Your task to perform on an android device: turn vacation reply on in the gmail app Image 0: 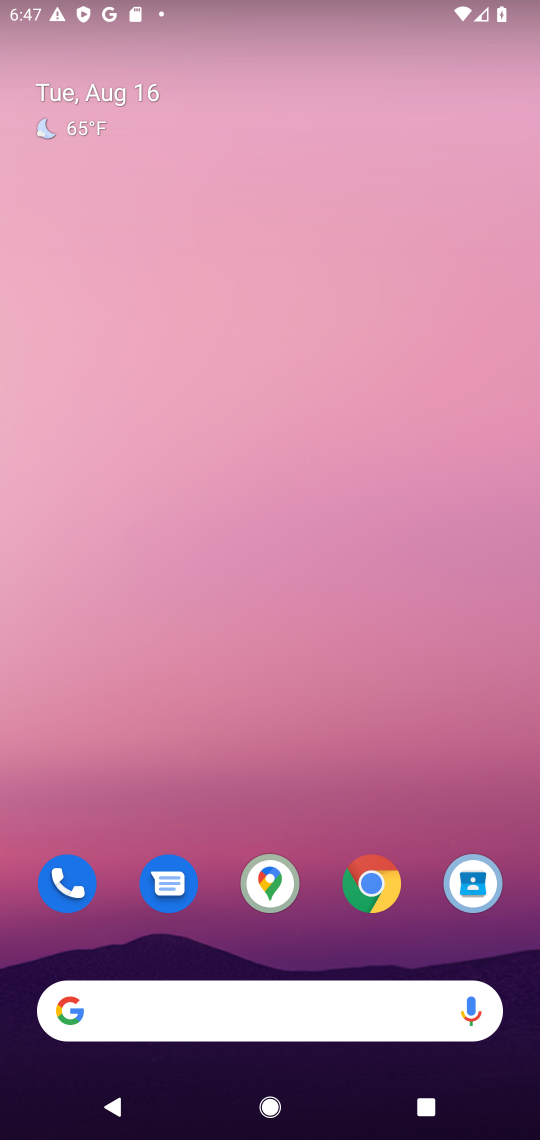
Step 0: drag from (266, 1012) to (347, 20)
Your task to perform on an android device: turn vacation reply on in the gmail app Image 1: 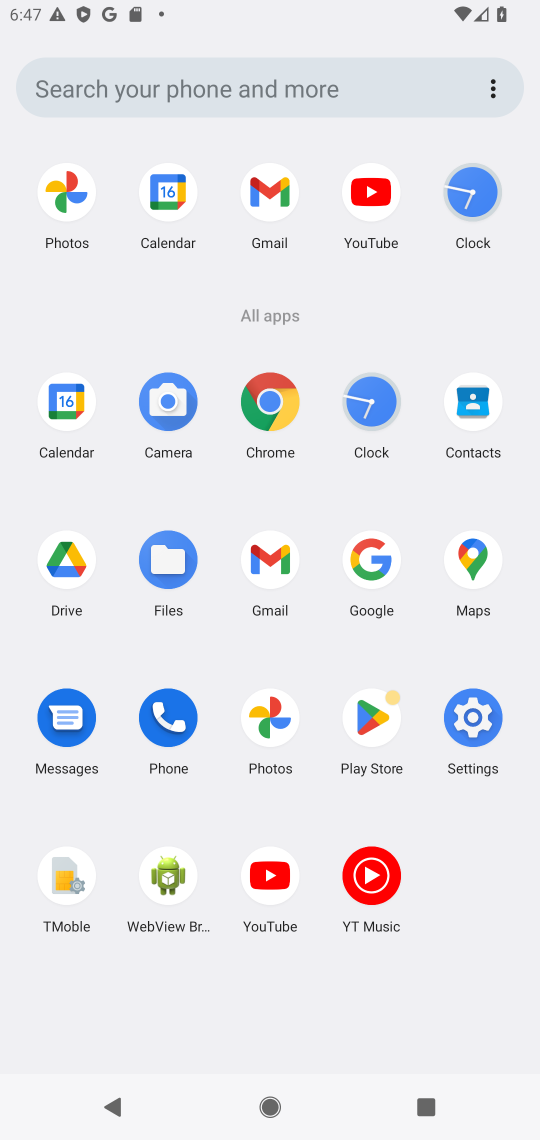
Step 1: click (269, 565)
Your task to perform on an android device: turn vacation reply on in the gmail app Image 2: 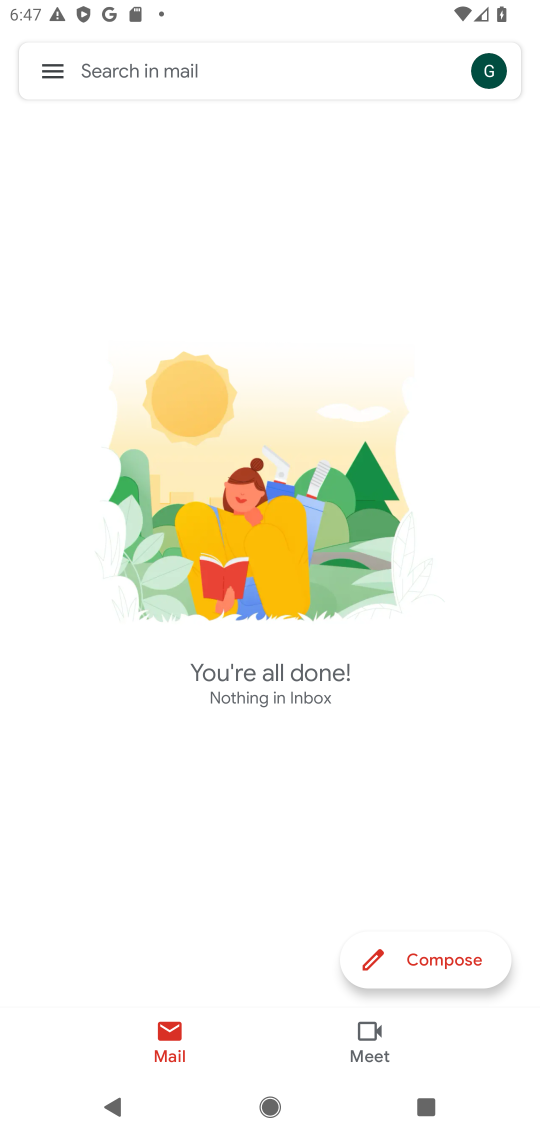
Step 2: click (49, 73)
Your task to perform on an android device: turn vacation reply on in the gmail app Image 3: 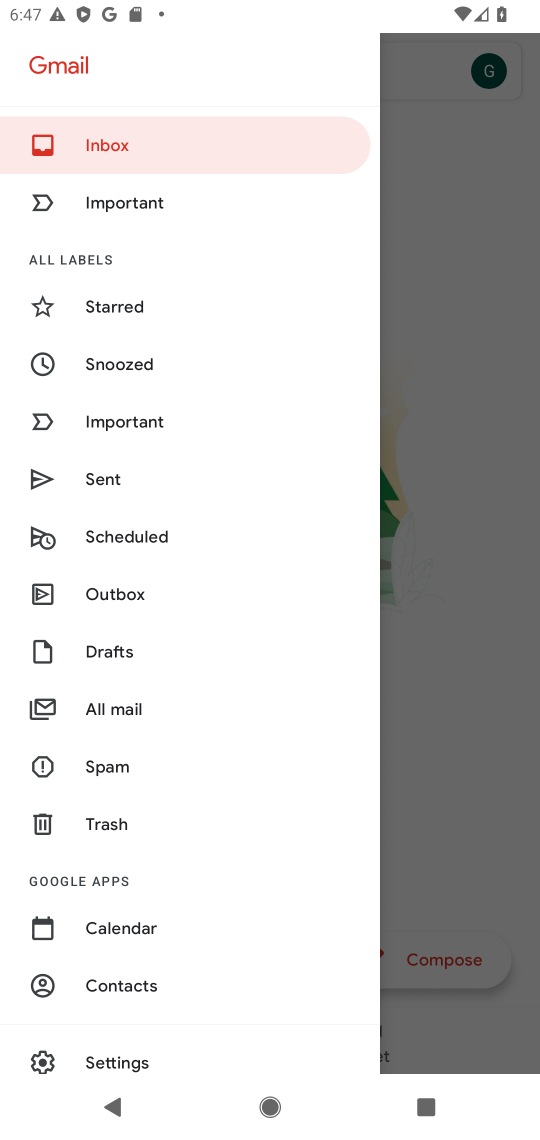
Step 3: drag from (151, 1005) to (171, 694)
Your task to perform on an android device: turn vacation reply on in the gmail app Image 4: 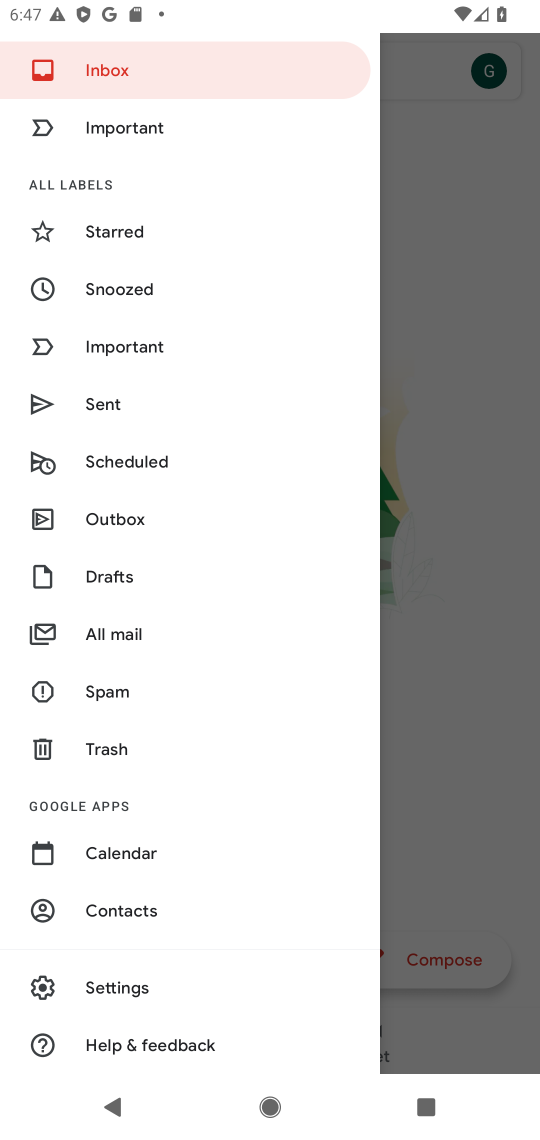
Step 4: click (127, 988)
Your task to perform on an android device: turn vacation reply on in the gmail app Image 5: 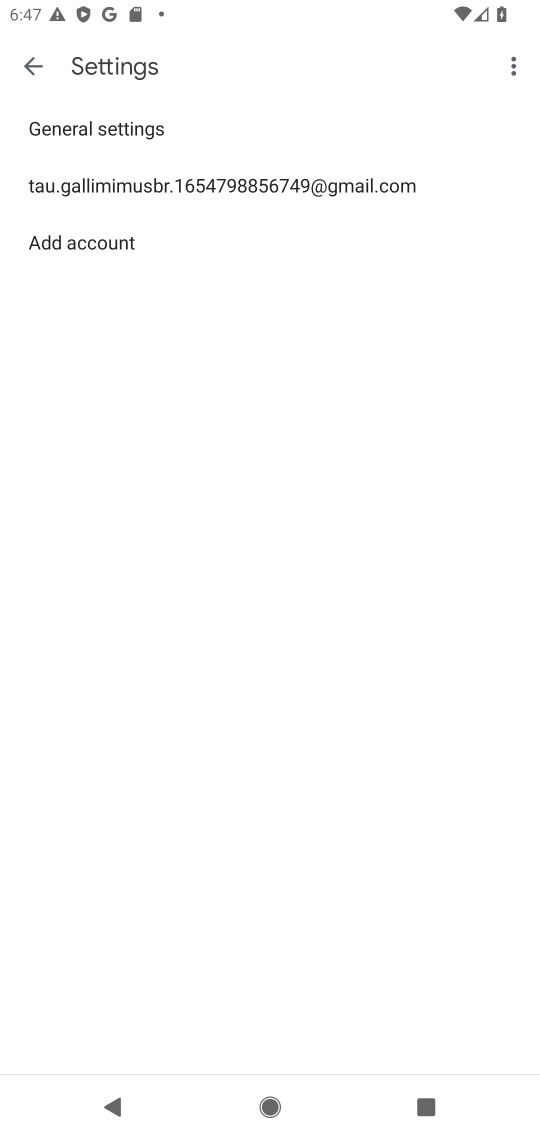
Step 5: click (285, 189)
Your task to perform on an android device: turn vacation reply on in the gmail app Image 6: 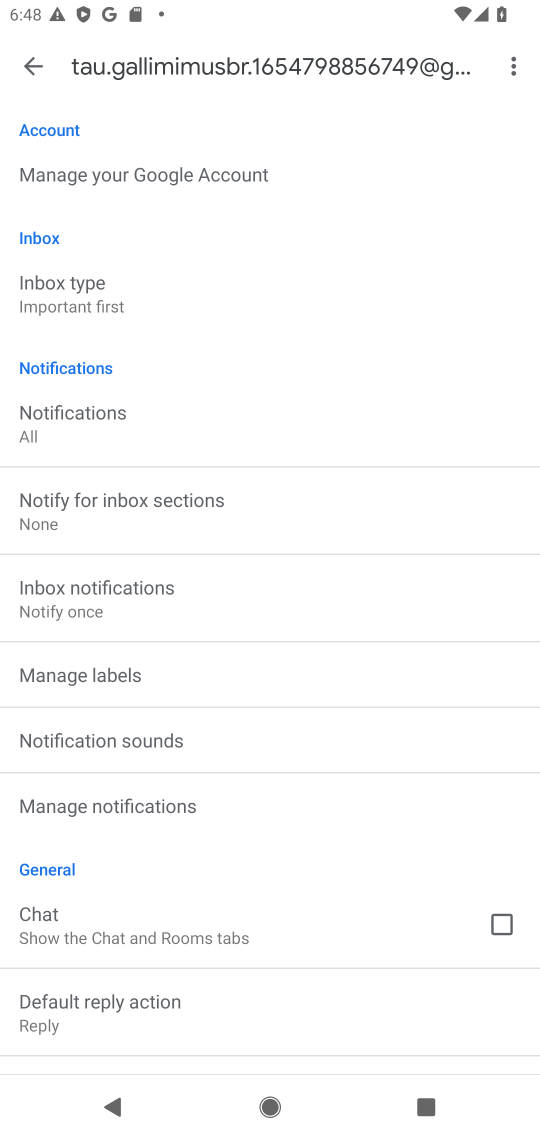
Step 6: task complete